Your task to perform on an android device: check storage Image 0: 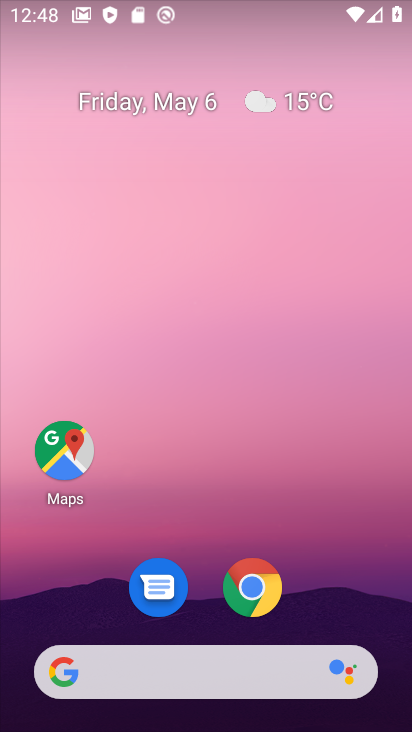
Step 0: drag from (276, 270) to (271, 90)
Your task to perform on an android device: check storage Image 1: 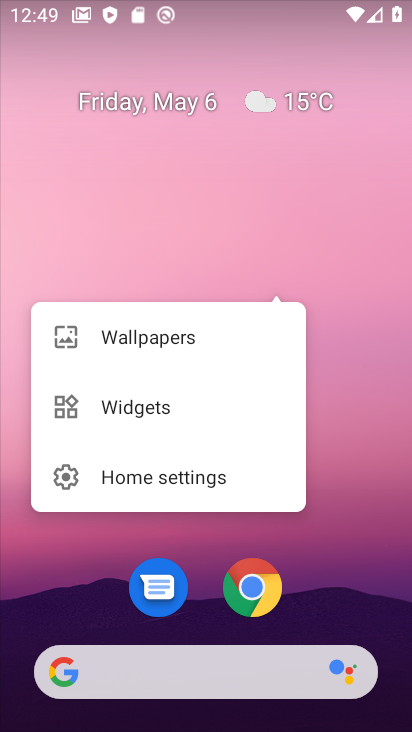
Step 1: drag from (335, 566) to (296, 65)
Your task to perform on an android device: check storage Image 2: 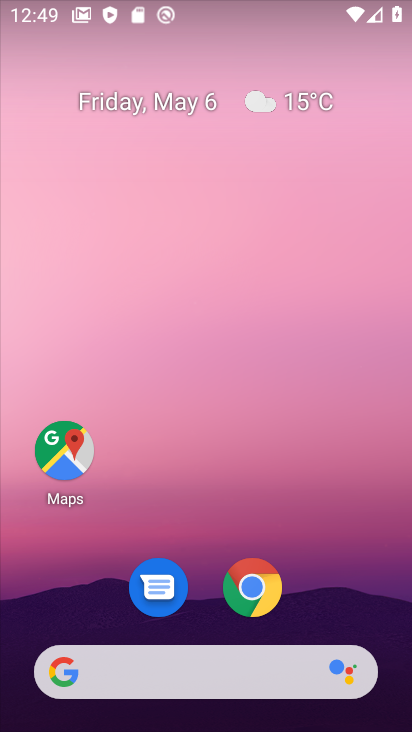
Step 2: drag from (300, 547) to (216, 80)
Your task to perform on an android device: check storage Image 3: 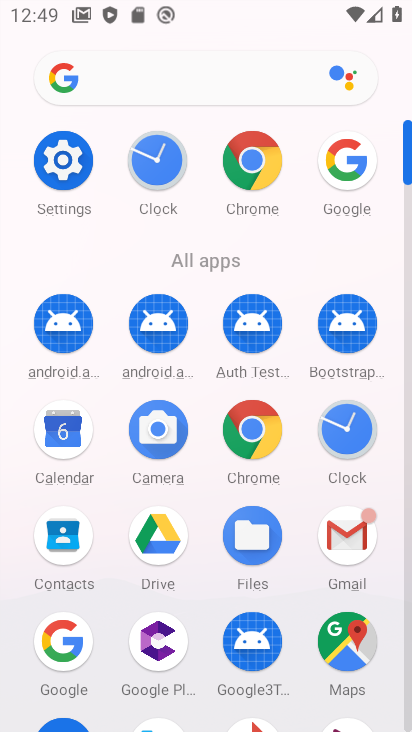
Step 3: click (67, 168)
Your task to perform on an android device: check storage Image 4: 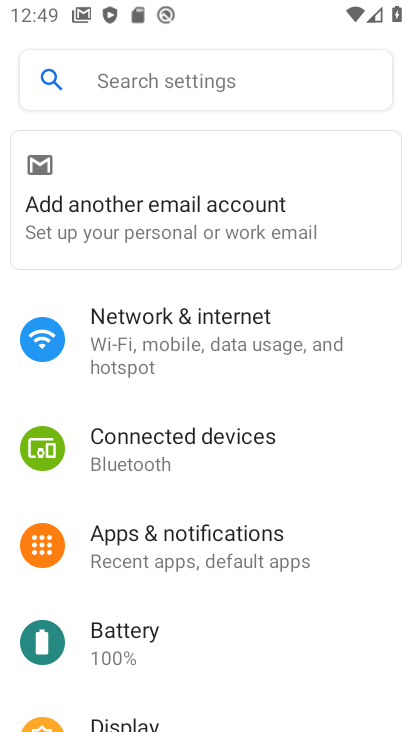
Step 4: drag from (222, 620) to (204, 93)
Your task to perform on an android device: check storage Image 5: 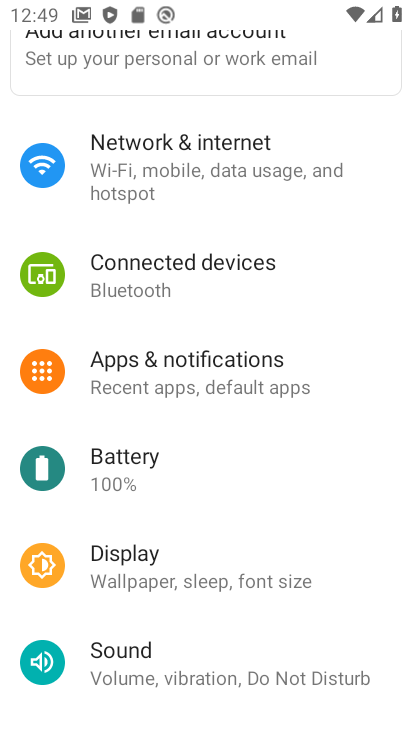
Step 5: drag from (189, 595) to (191, 131)
Your task to perform on an android device: check storage Image 6: 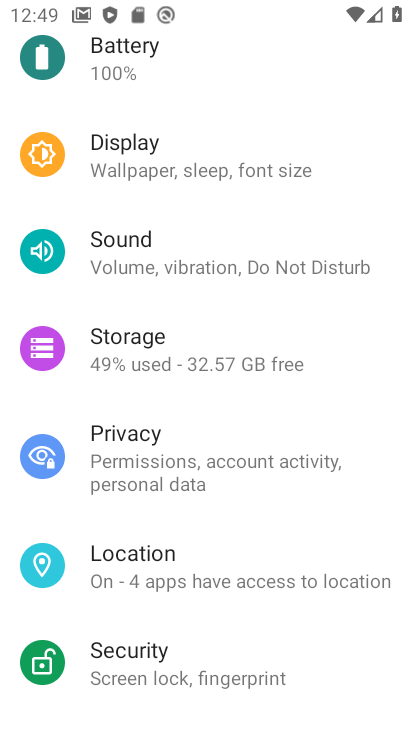
Step 6: click (138, 342)
Your task to perform on an android device: check storage Image 7: 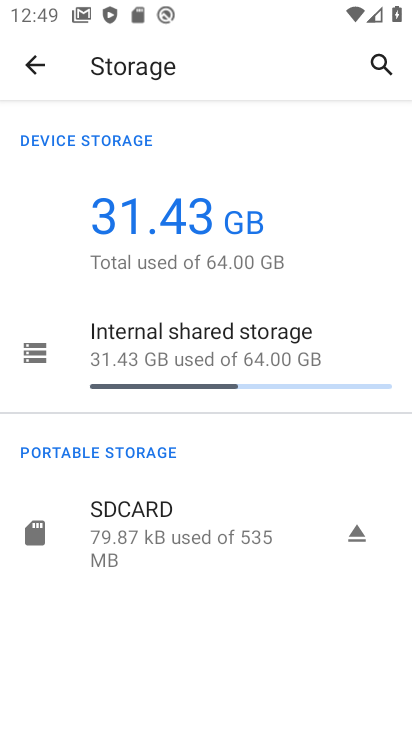
Step 7: task complete